Your task to perform on an android device: Open calendar and show me the third week of next month Image 0: 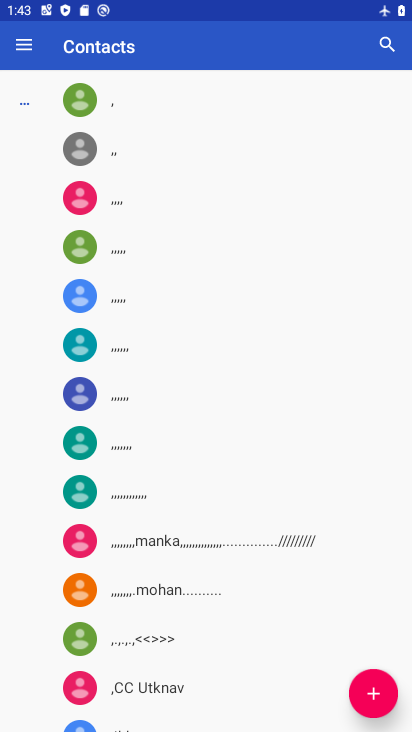
Step 0: press home button
Your task to perform on an android device: Open calendar and show me the third week of next month Image 1: 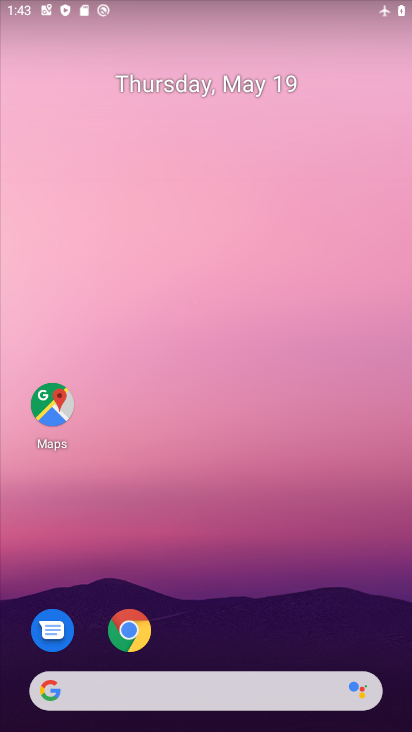
Step 1: drag from (204, 676) to (127, 67)
Your task to perform on an android device: Open calendar and show me the third week of next month Image 2: 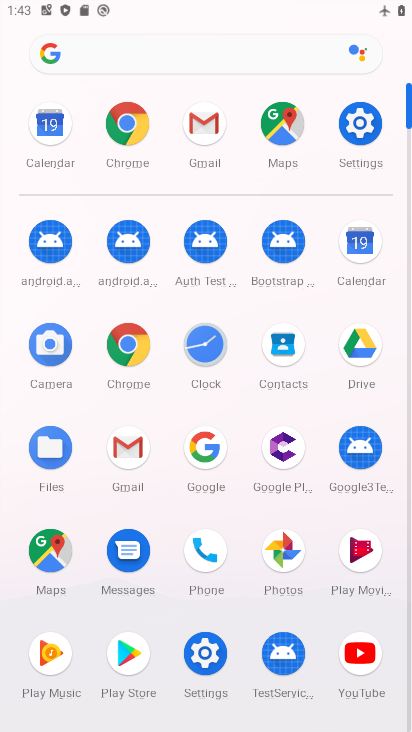
Step 2: click (362, 265)
Your task to perform on an android device: Open calendar and show me the third week of next month Image 3: 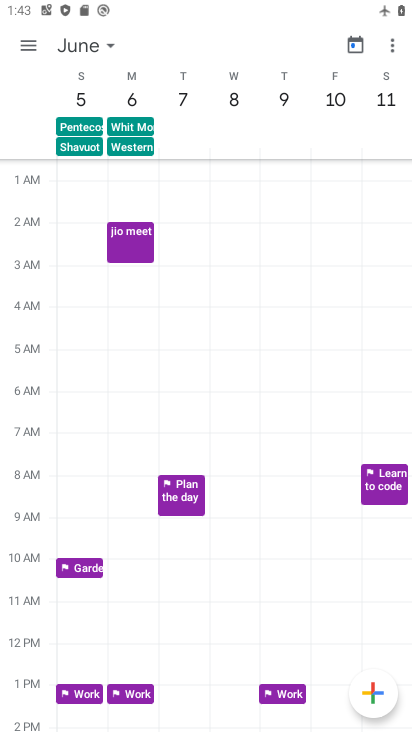
Step 3: task complete